Your task to perform on an android device: Open Amazon Image 0: 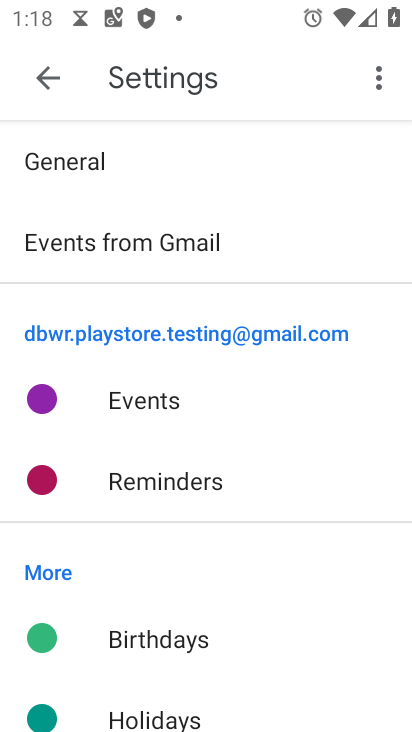
Step 0: press home button
Your task to perform on an android device: Open Amazon Image 1: 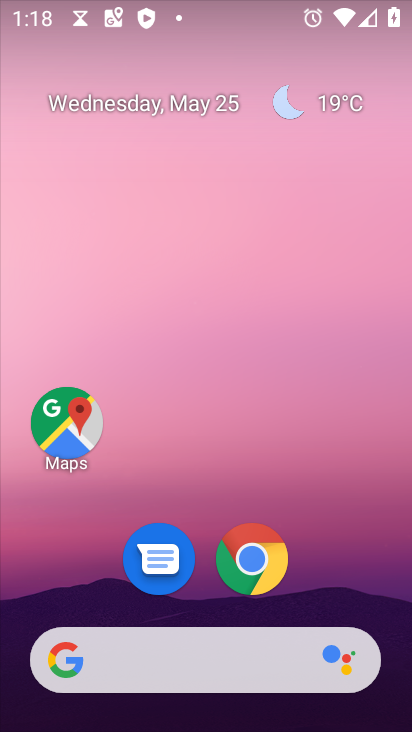
Step 1: drag from (383, 593) to (339, 102)
Your task to perform on an android device: Open Amazon Image 2: 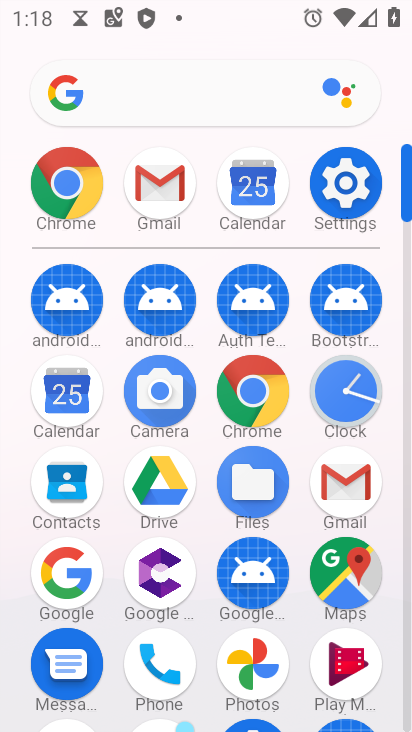
Step 2: click (68, 175)
Your task to perform on an android device: Open Amazon Image 3: 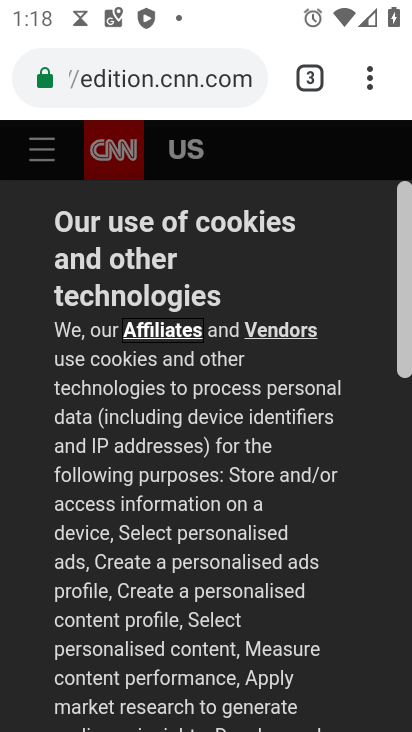
Step 3: click (208, 74)
Your task to perform on an android device: Open Amazon Image 4: 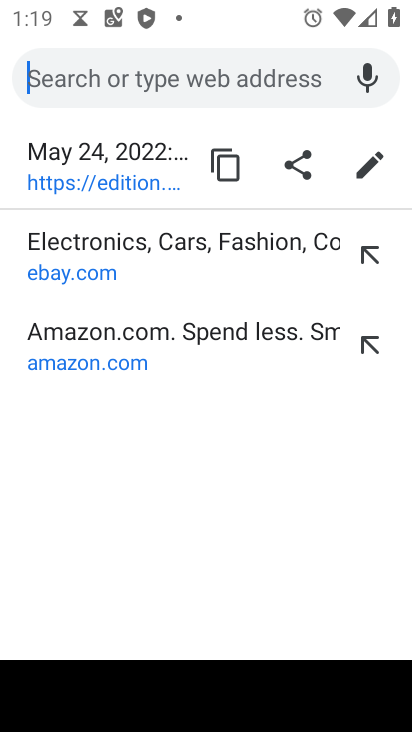
Step 4: click (167, 347)
Your task to perform on an android device: Open Amazon Image 5: 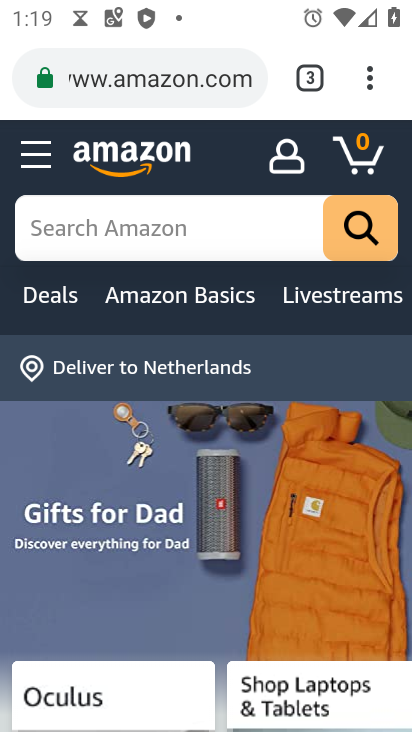
Step 5: task complete